Your task to perform on an android device: What is the news today? Image 0: 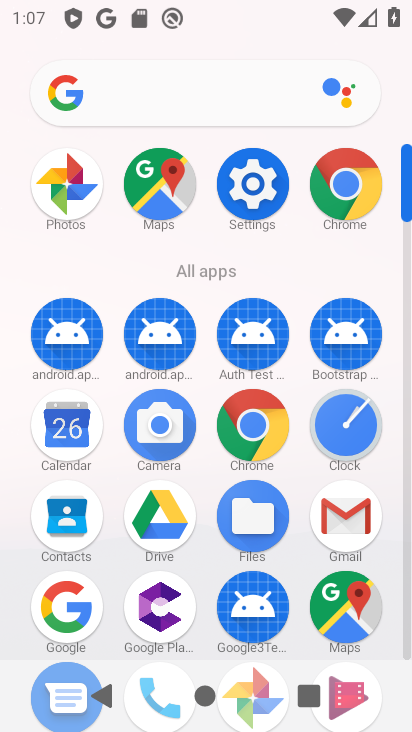
Step 0: click (77, 624)
Your task to perform on an android device: What is the news today? Image 1: 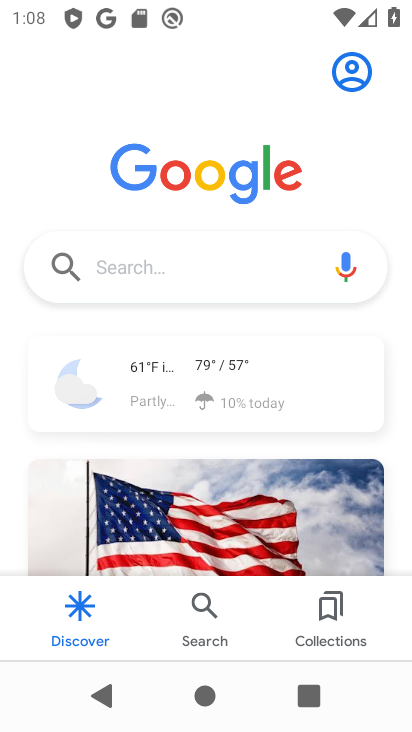
Step 1: click (206, 288)
Your task to perform on an android device: What is the news today? Image 2: 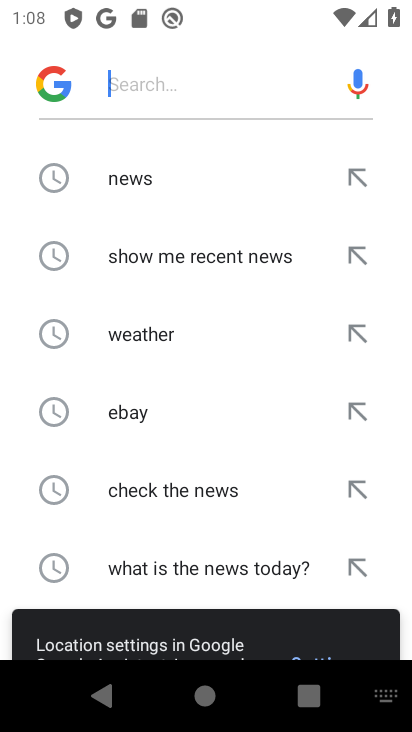
Step 2: click (180, 177)
Your task to perform on an android device: What is the news today? Image 3: 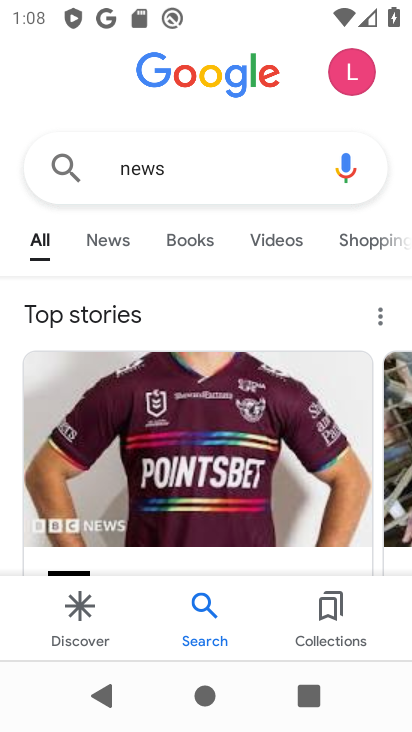
Step 3: click (220, 169)
Your task to perform on an android device: What is the news today? Image 4: 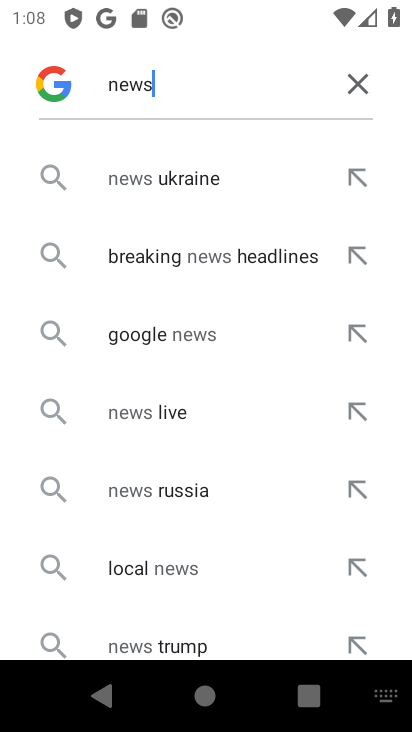
Step 4: task complete